Your task to perform on an android device: Is it going to rain this weekend? Image 0: 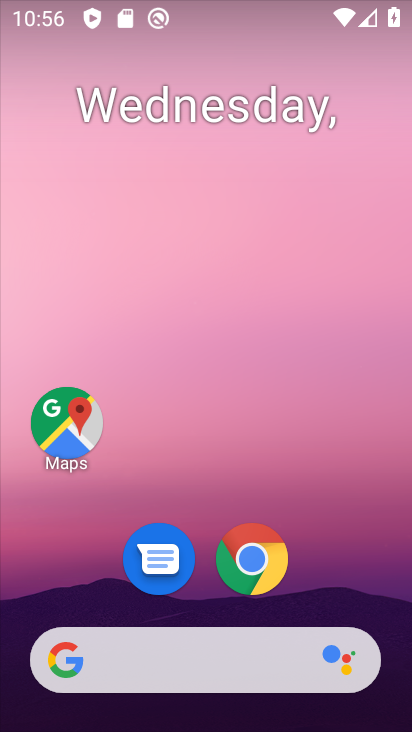
Step 0: click (219, 616)
Your task to perform on an android device: Is it going to rain this weekend? Image 1: 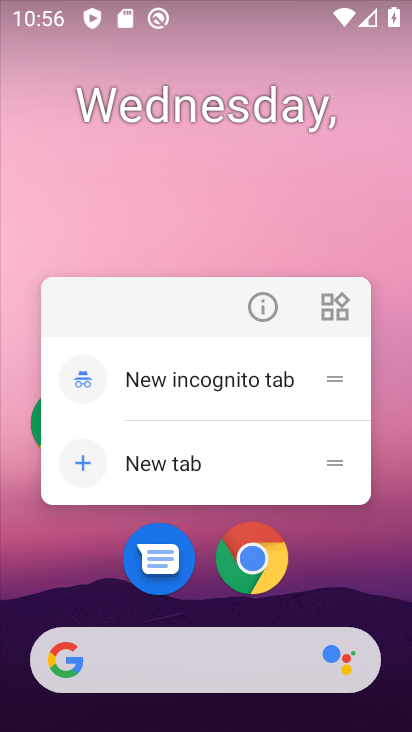
Step 1: click (257, 554)
Your task to perform on an android device: Is it going to rain this weekend? Image 2: 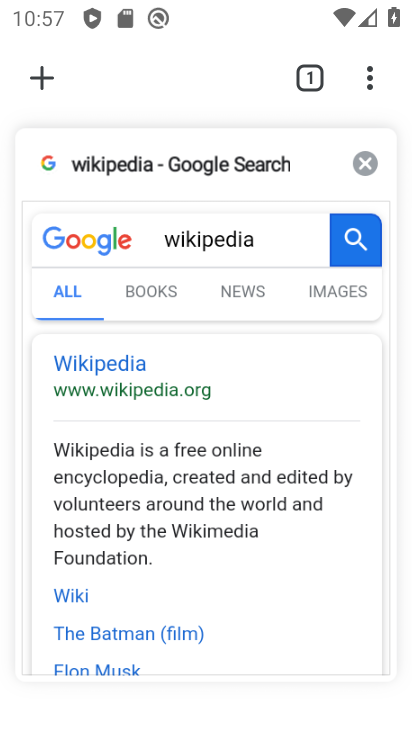
Step 2: click (162, 172)
Your task to perform on an android device: Is it going to rain this weekend? Image 3: 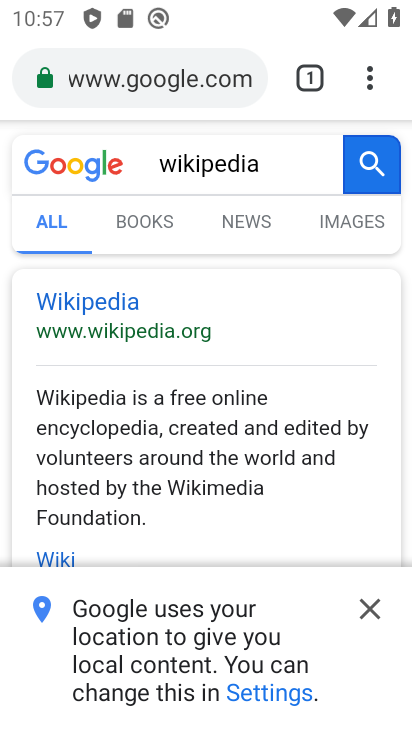
Step 3: click (186, 90)
Your task to perform on an android device: Is it going to rain this weekend? Image 4: 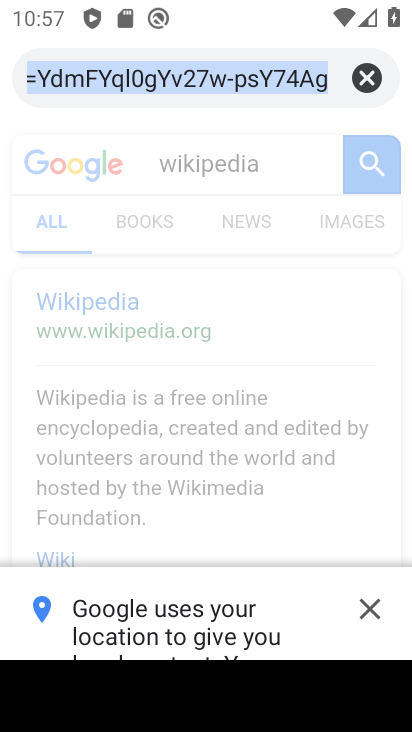
Step 4: type "Is it going to rain this weekend?"
Your task to perform on an android device: Is it going to rain this weekend? Image 5: 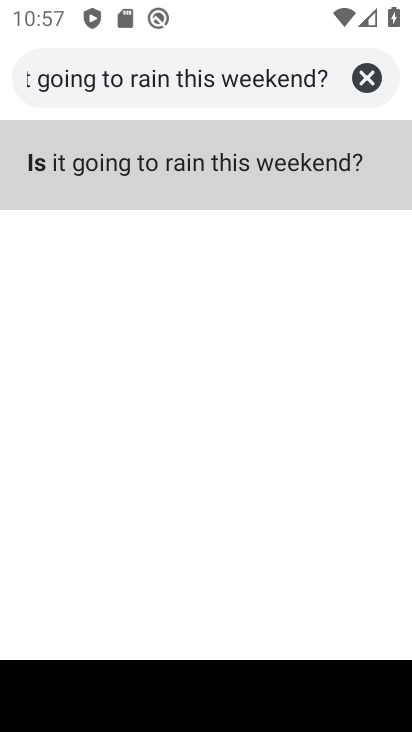
Step 5: click (286, 162)
Your task to perform on an android device: Is it going to rain this weekend? Image 6: 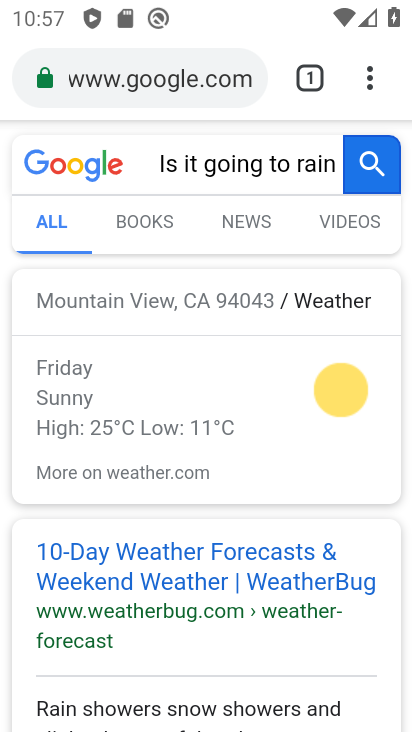
Step 6: task complete